Your task to perform on an android device: What's the weather today? Image 0: 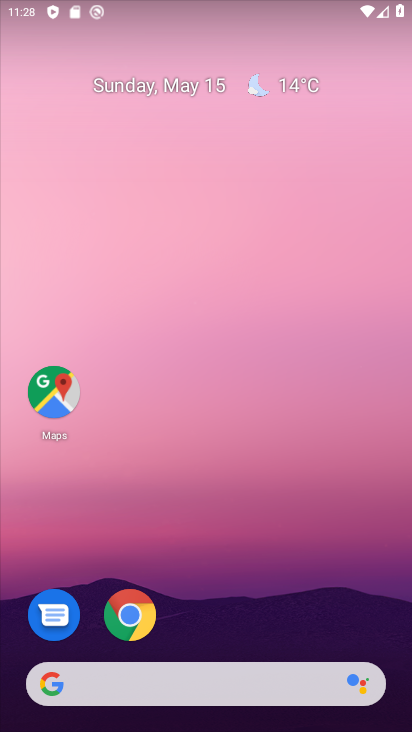
Step 0: drag from (264, 572) to (312, 662)
Your task to perform on an android device: What's the weather today? Image 1: 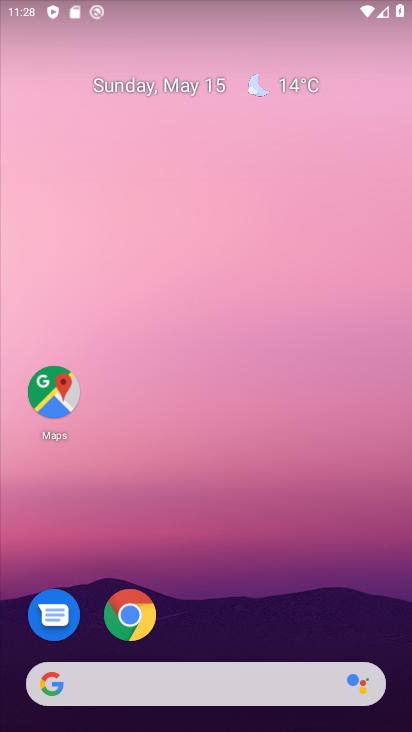
Step 1: click (291, 87)
Your task to perform on an android device: What's the weather today? Image 2: 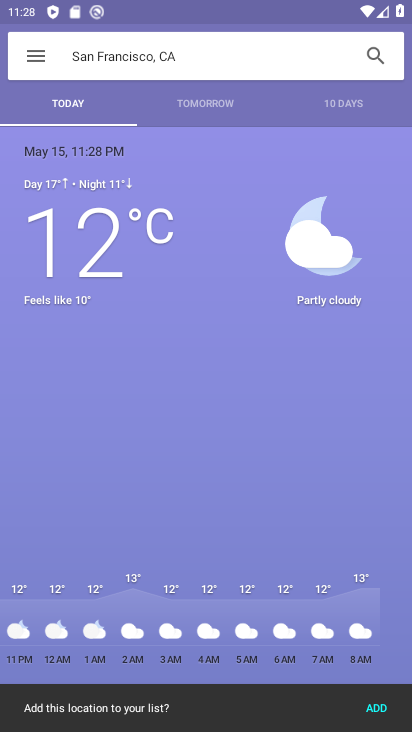
Step 2: task complete